Your task to perform on an android device: Search for the top rated book on goodreads. Image 0: 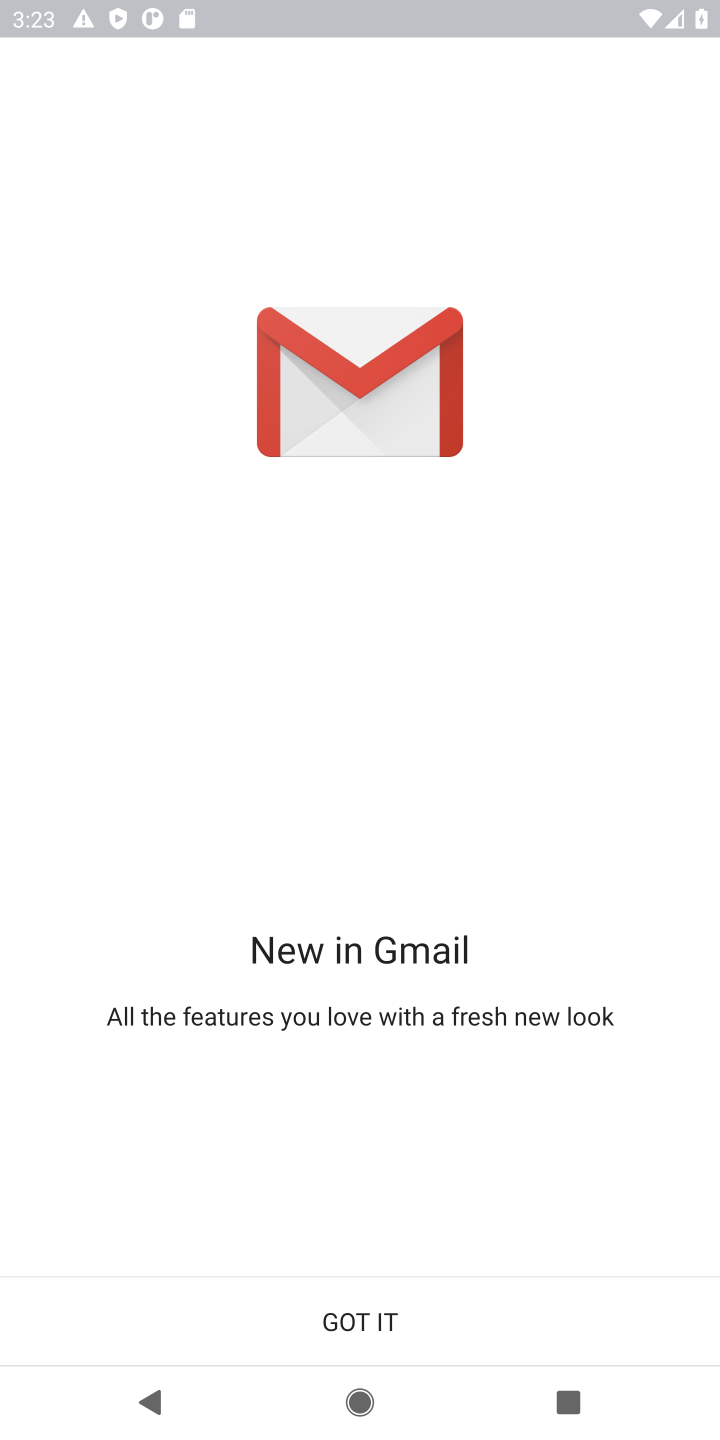
Step 0: press home button
Your task to perform on an android device: Search for the top rated book on goodreads. Image 1: 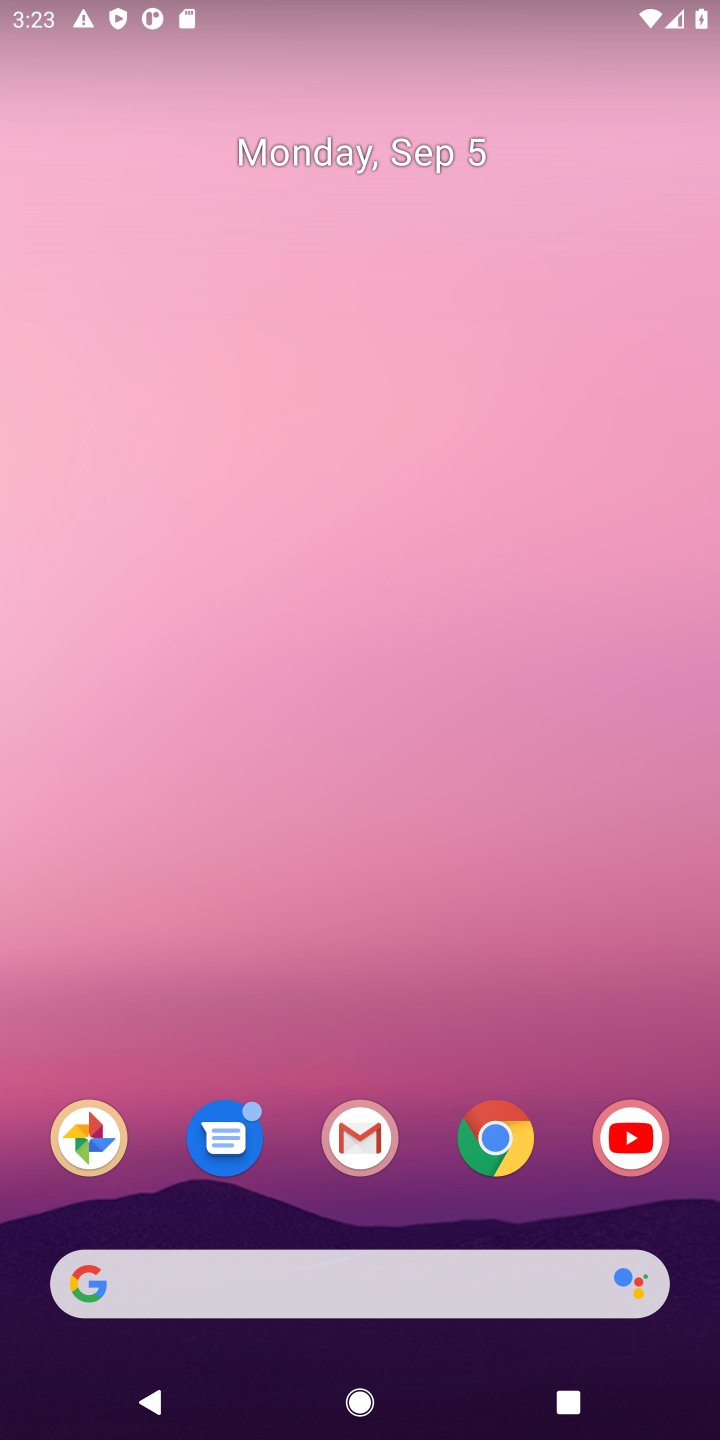
Step 1: click (498, 1142)
Your task to perform on an android device: Search for the top rated book on goodreads. Image 2: 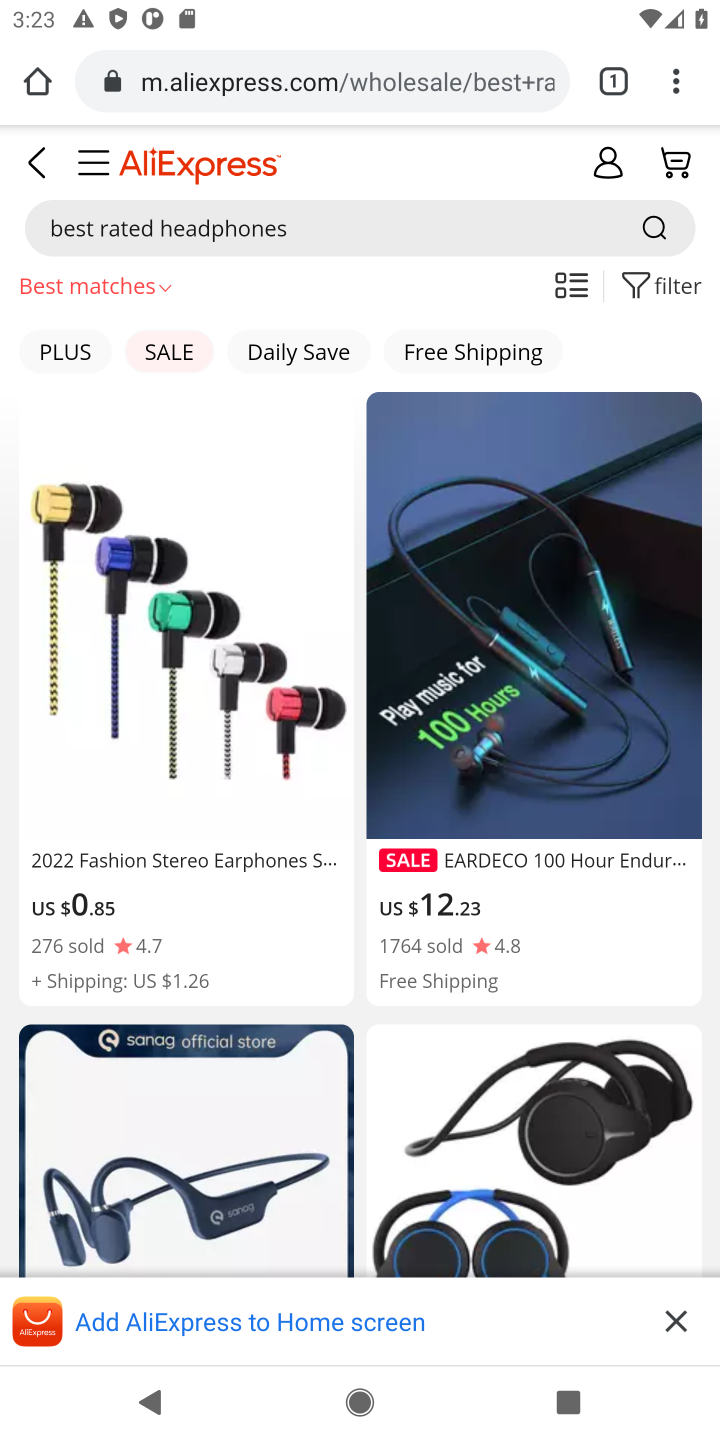
Step 2: click (489, 77)
Your task to perform on an android device: Search for the top rated book on goodreads. Image 3: 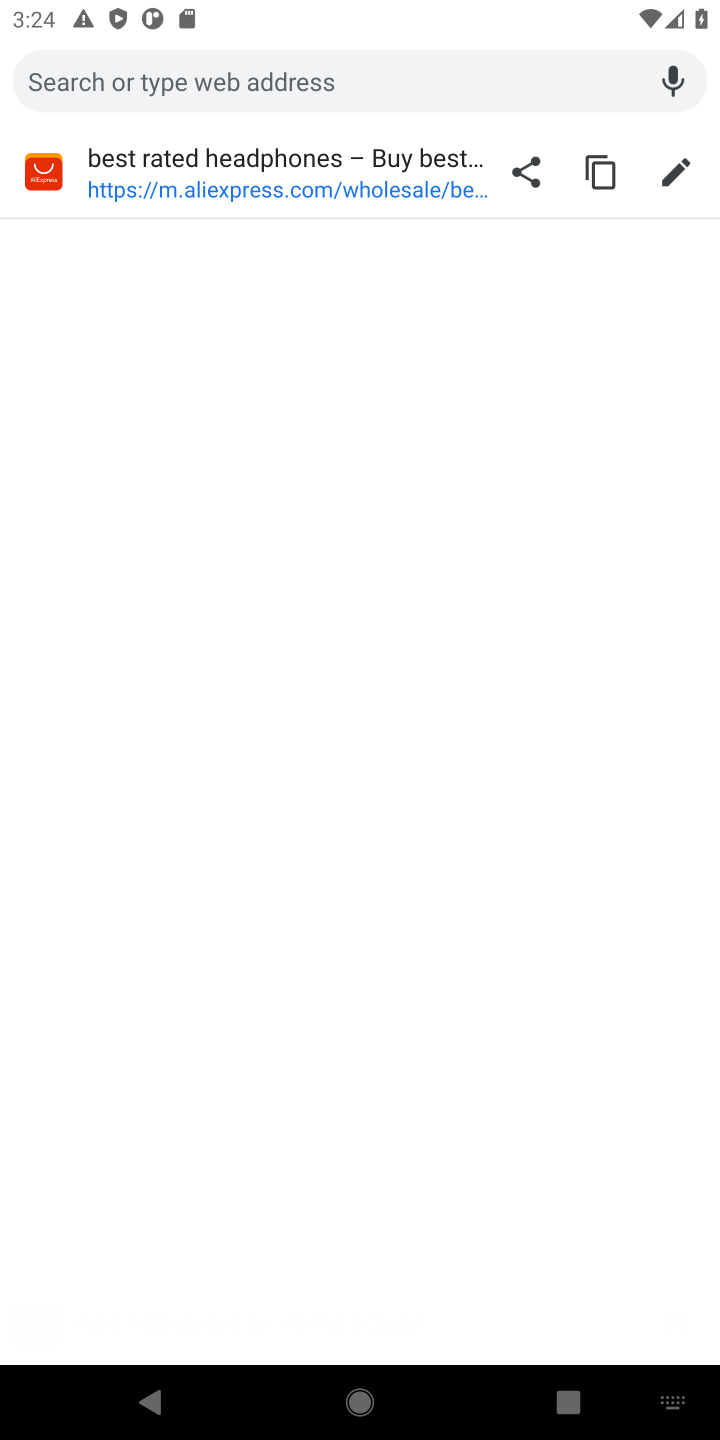
Step 3: type "goodreads"
Your task to perform on an android device: Search for the top rated book on goodreads. Image 4: 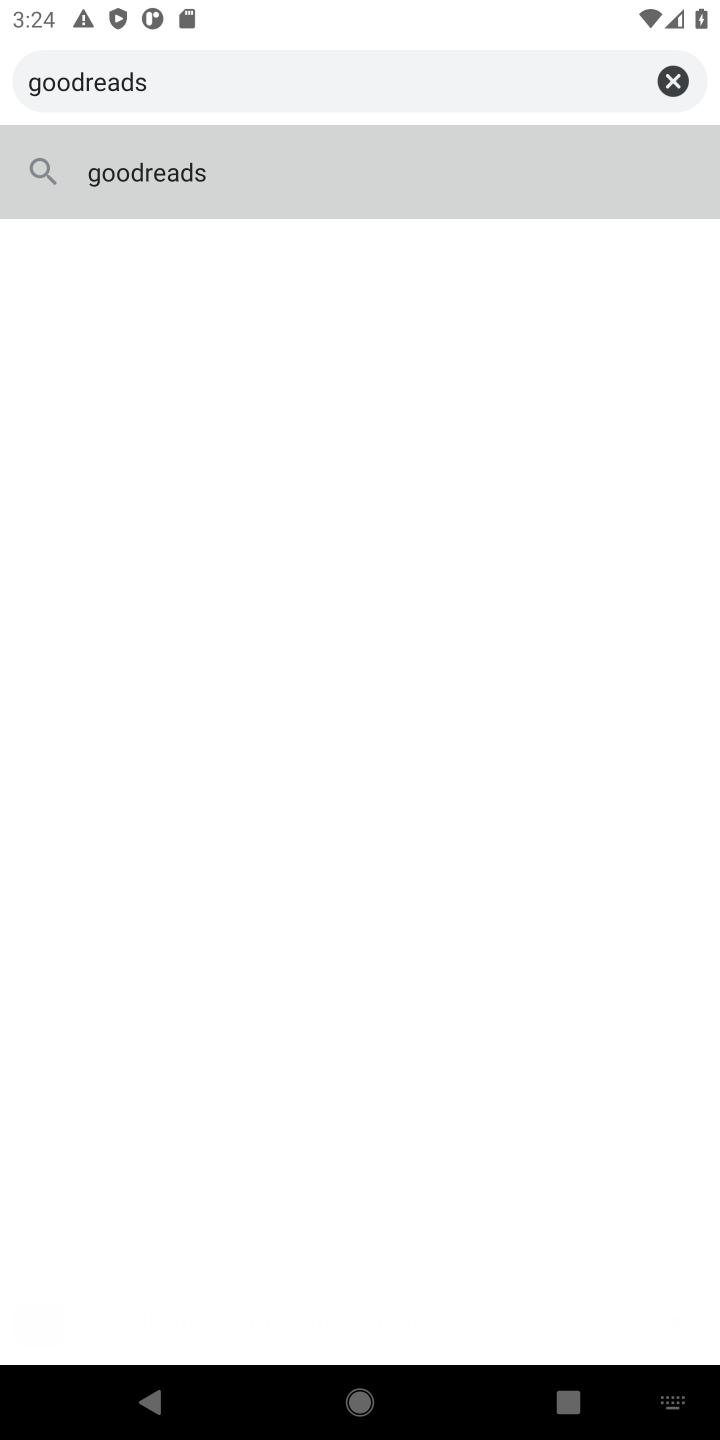
Step 4: click (308, 179)
Your task to perform on an android device: Search for the top rated book on goodreads. Image 5: 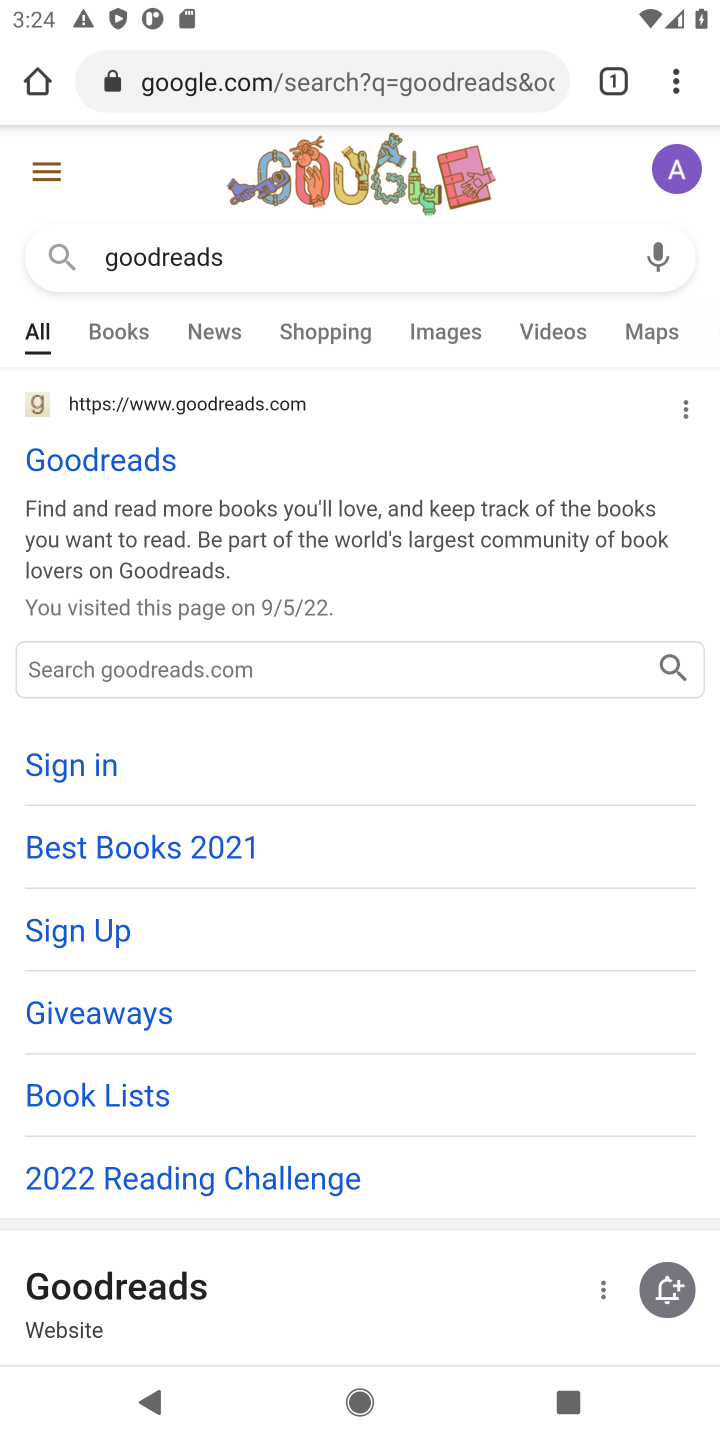
Step 5: click (168, 473)
Your task to perform on an android device: Search for the top rated book on goodreads. Image 6: 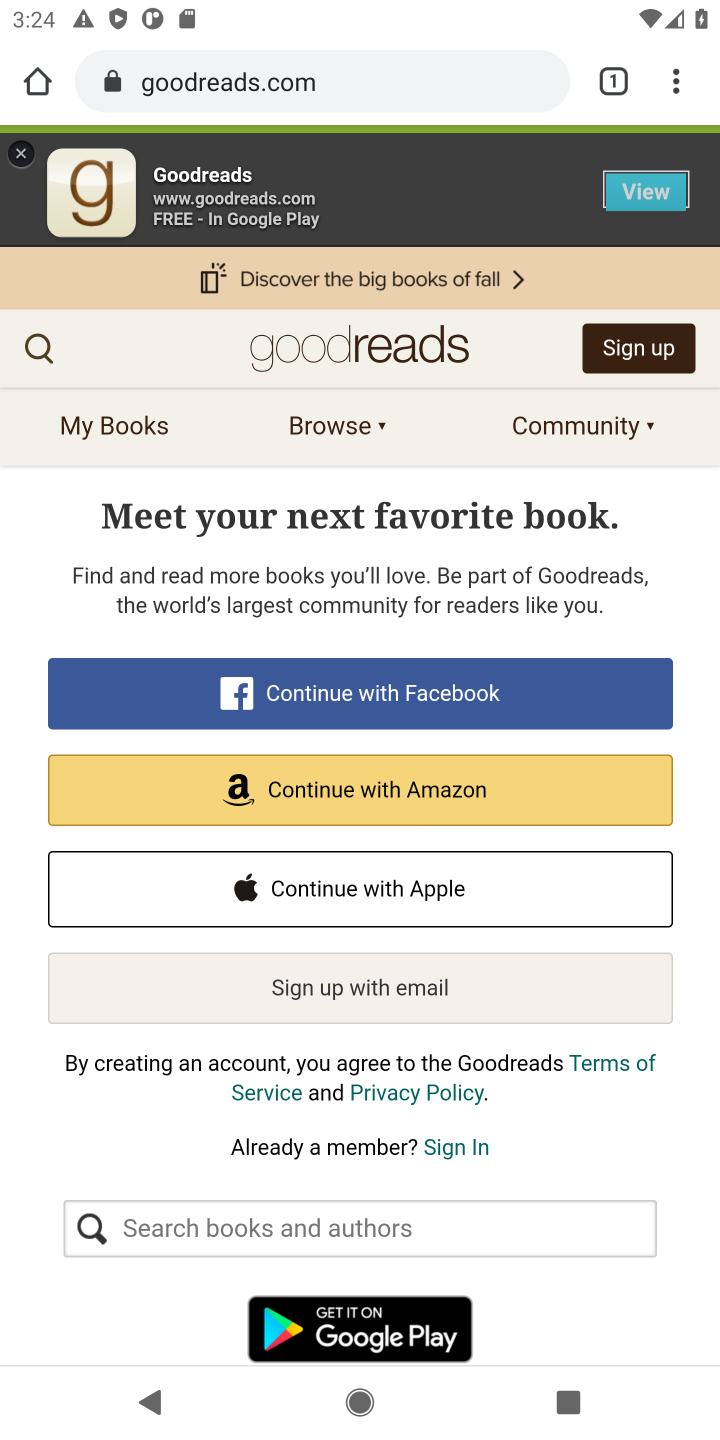
Step 6: click (40, 340)
Your task to perform on an android device: Search for the top rated book on goodreads. Image 7: 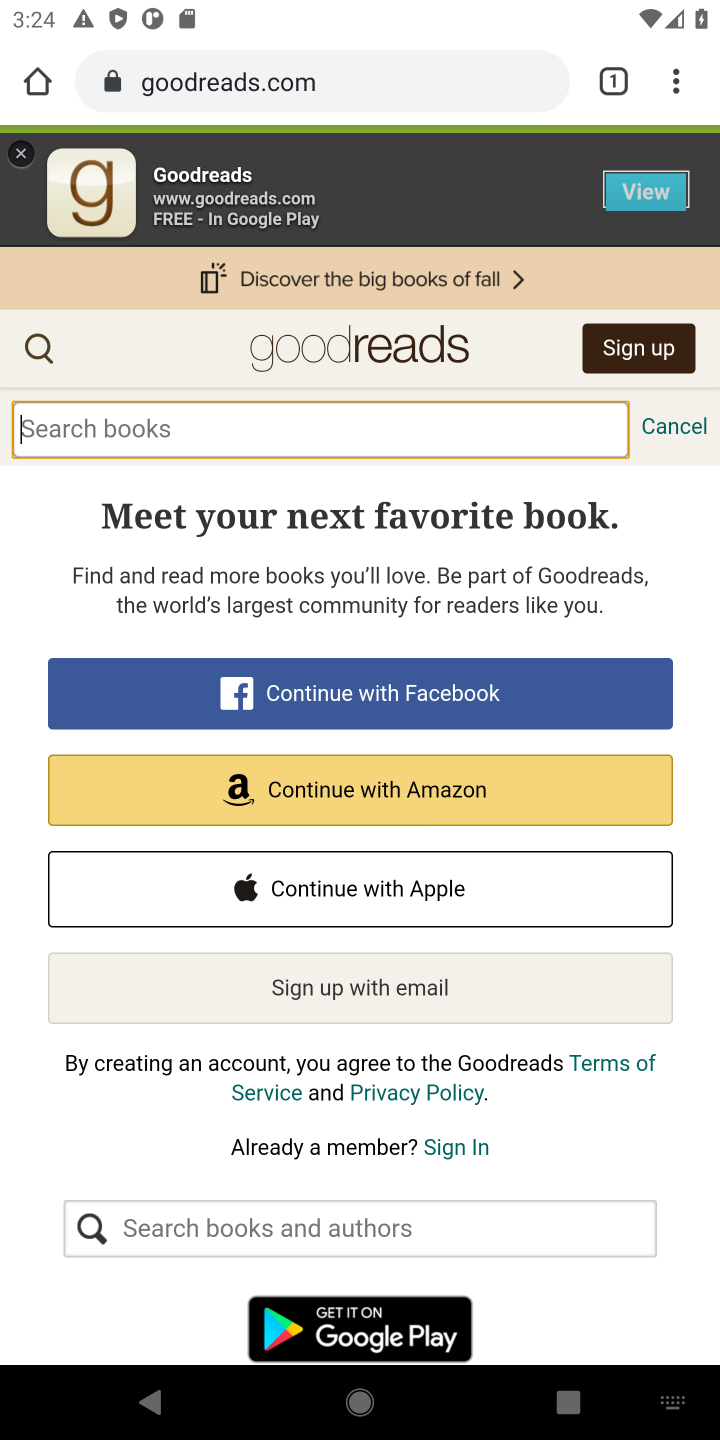
Step 7: click (103, 421)
Your task to perform on an android device: Search for the top rated book on goodreads. Image 8: 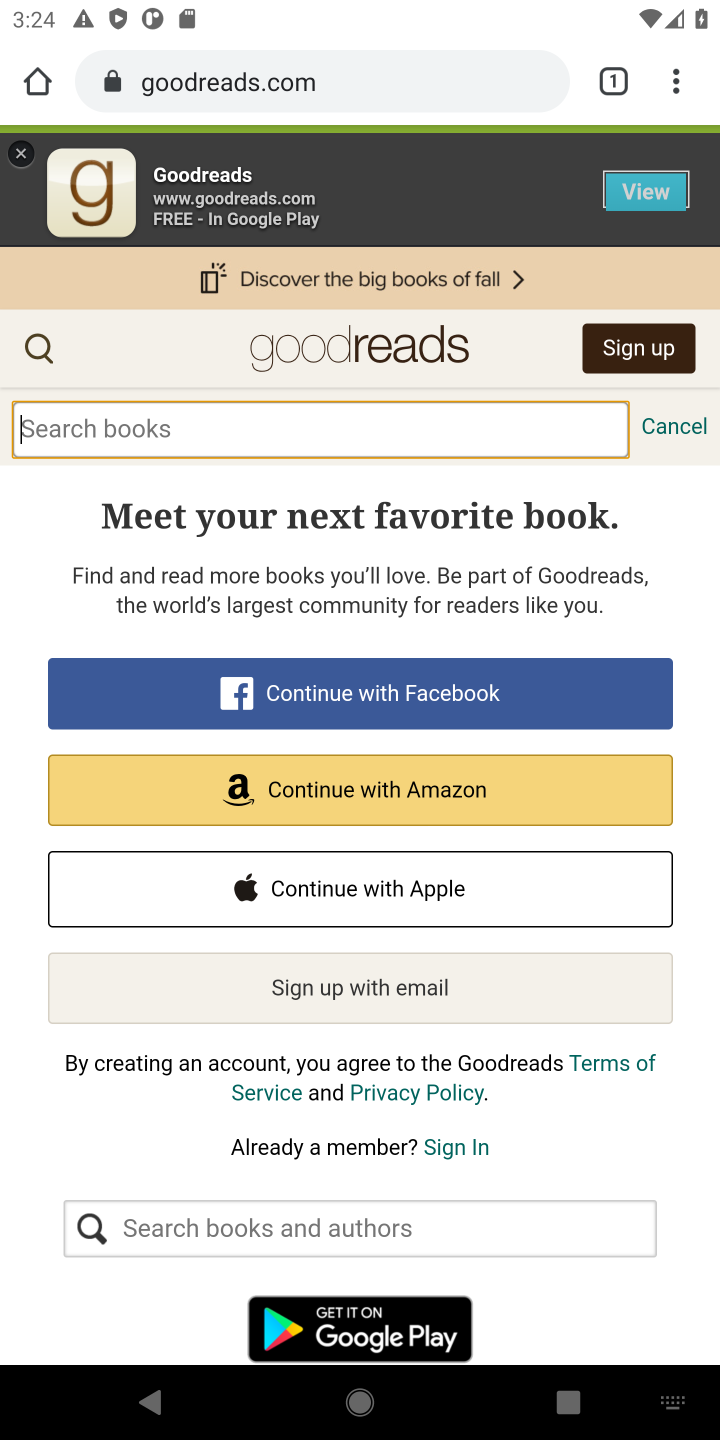
Step 8: type "top rated book"
Your task to perform on an android device: Search for the top rated book on goodreads. Image 9: 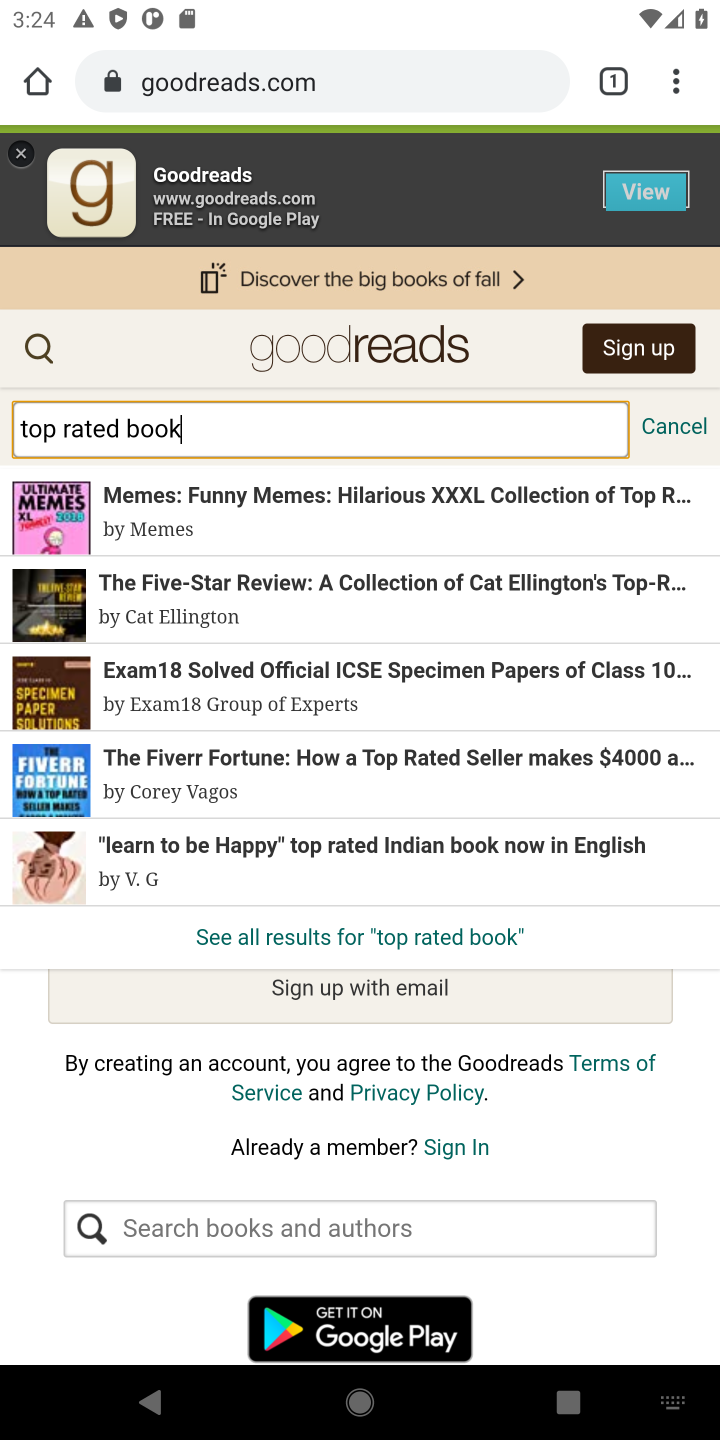
Step 9: click (419, 942)
Your task to perform on an android device: Search for the top rated book on goodreads. Image 10: 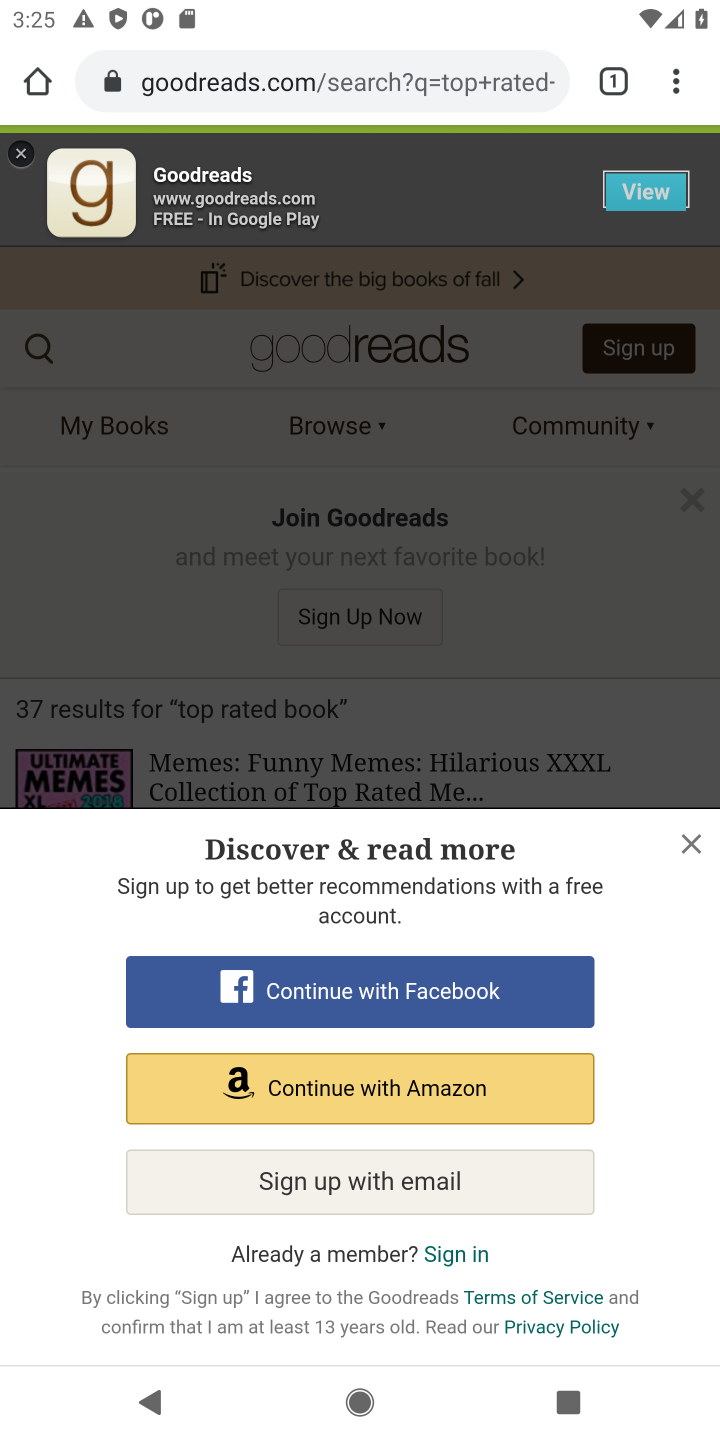
Step 10: click (686, 840)
Your task to perform on an android device: Search for the top rated book on goodreads. Image 11: 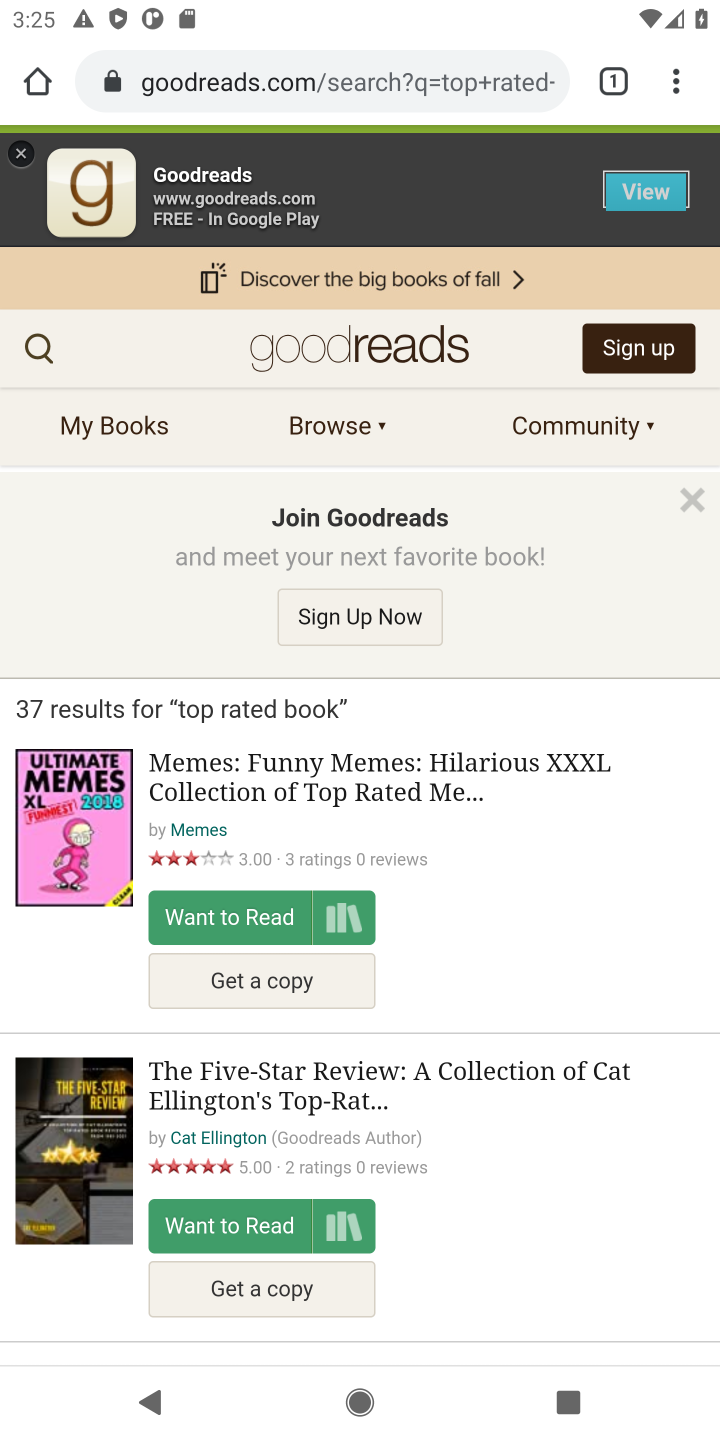
Step 11: task complete